Your task to perform on an android device: toggle sleep mode Image 0: 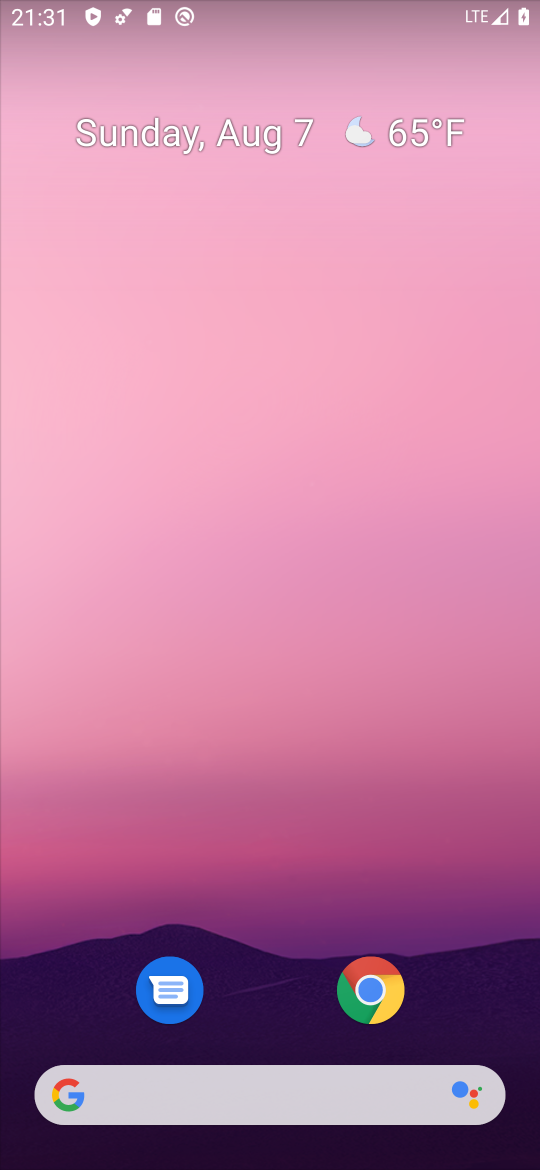
Step 0: drag from (257, 948) to (319, 5)
Your task to perform on an android device: toggle sleep mode Image 1: 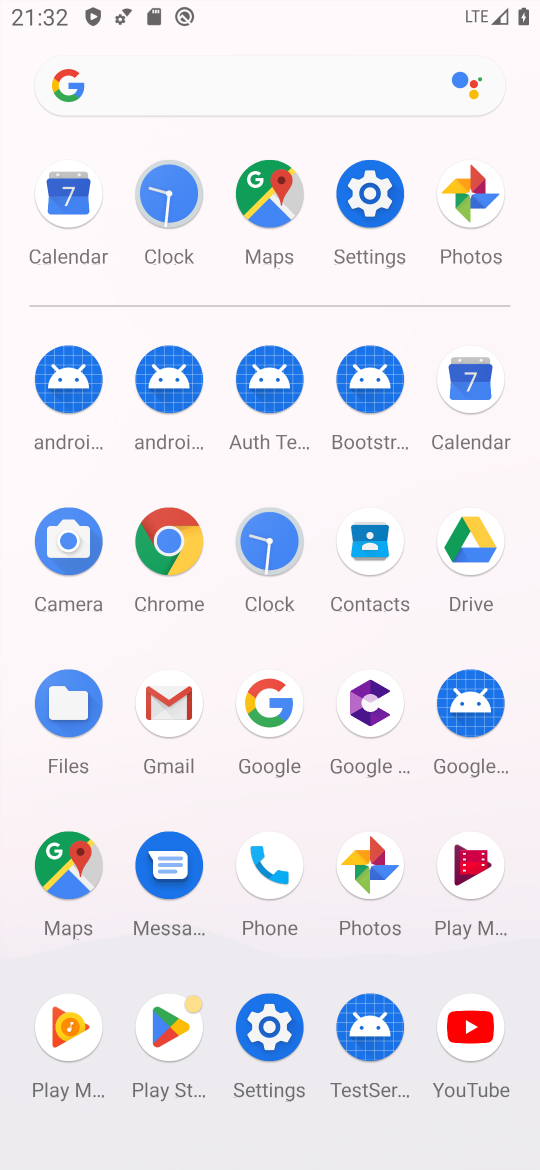
Step 1: click (378, 191)
Your task to perform on an android device: toggle sleep mode Image 2: 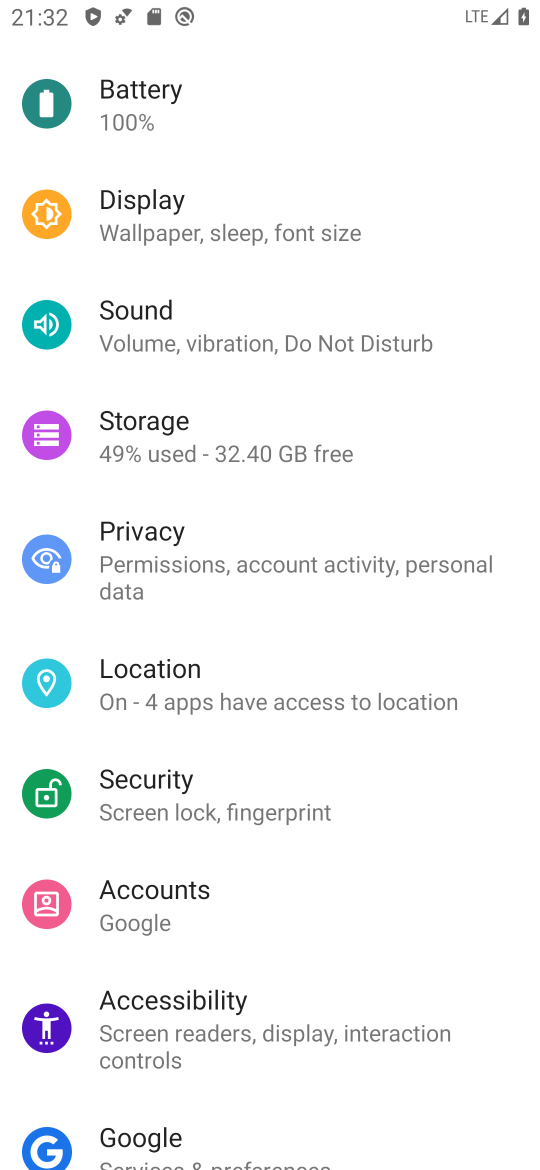
Step 2: click (259, 229)
Your task to perform on an android device: toggle sleep mode Image 3: 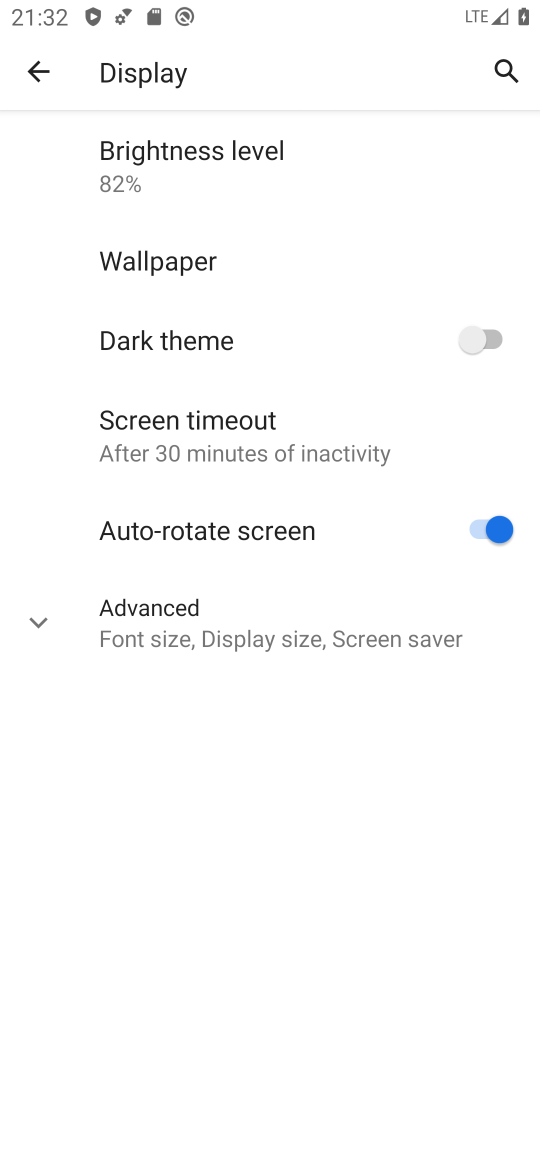
Step 3: click (34, 613)
Your task to perform on an android device: toggle sleep mode Image 4: 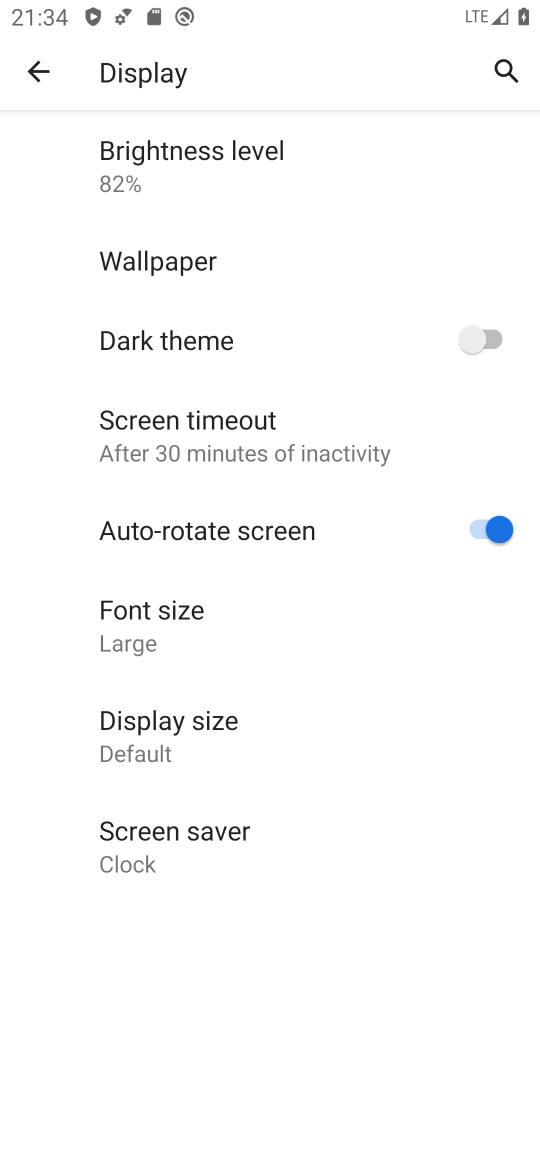
Step 4: task complete